Your task to perform on an android device: toggle sleep mode Image 0: 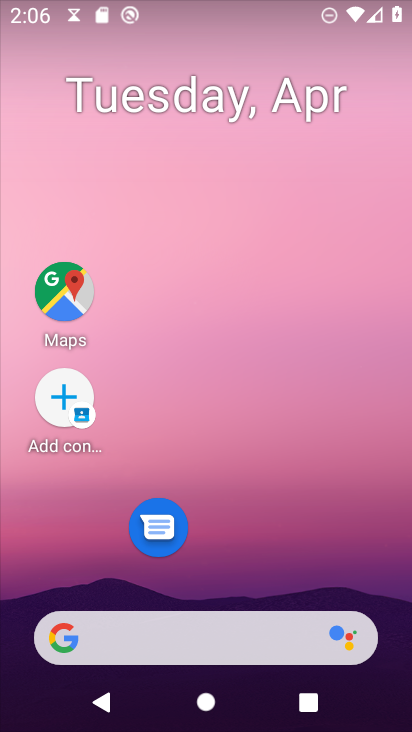
Step 0: drag from (250, 578) to (262, 78)
Your task to perform on an android device: toggle sleep mode Image 1: 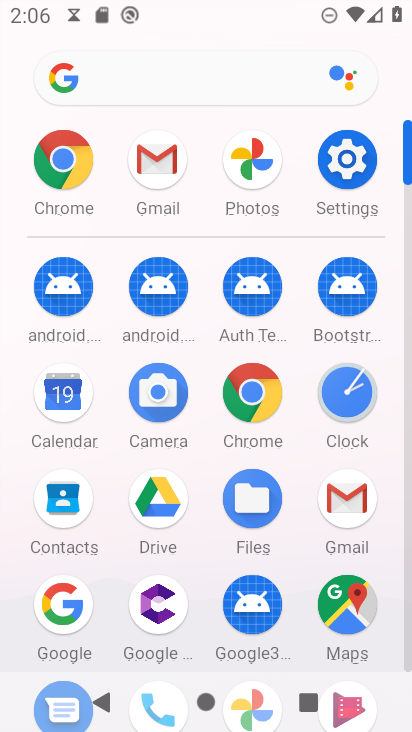
Step 1: drag from (200, 508) to (206, 288)
Your task to perform on an android device: toggle sleep mode Image 2: 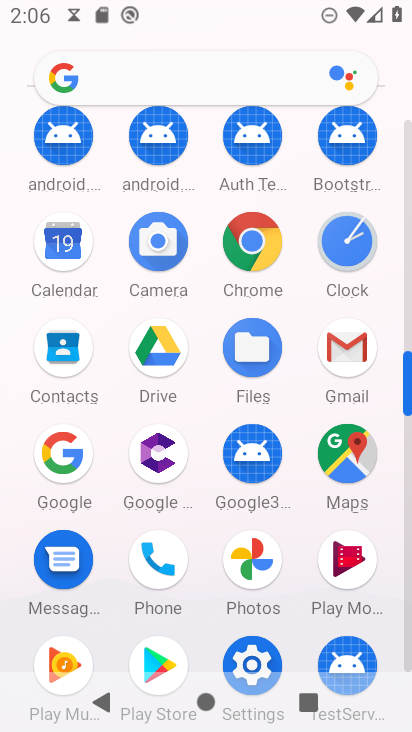
Step 2: drag from (182, 522) to (198, 400)
Your task to perform on an android device: toggle sleep mode Image 3: 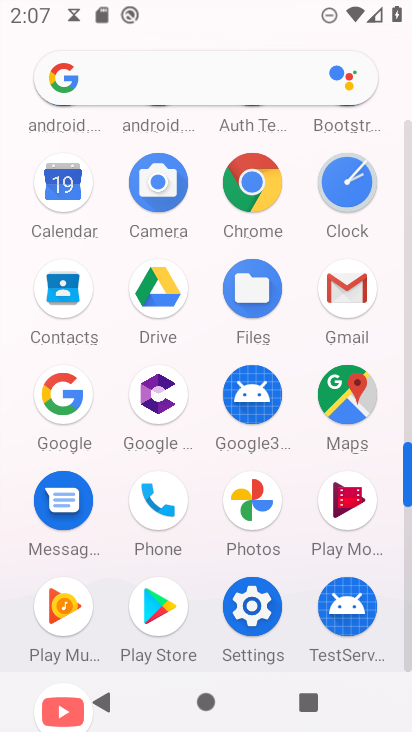
Step 3: click (254, 605)
Your task to perform on an android device: toggle sleep mode Image 4: 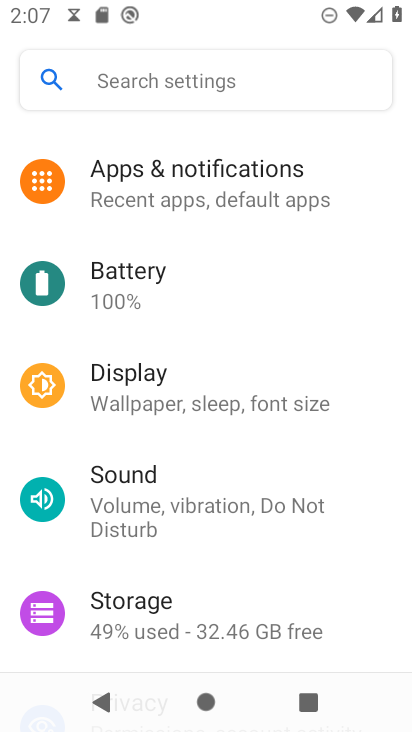
Step 4: click (176, 397)
Your task to perform on an android device: toggle sleep mode Image 5: 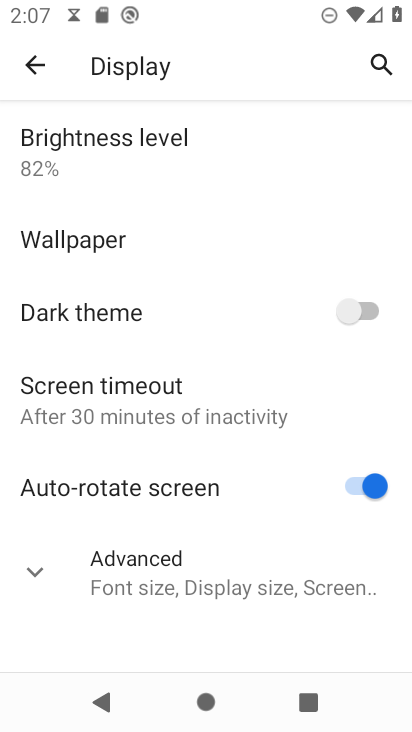
Step 5: drag from (169, 535) to (172, 425)
Your task to perform on an android device: toggle sleep mode Image 6: 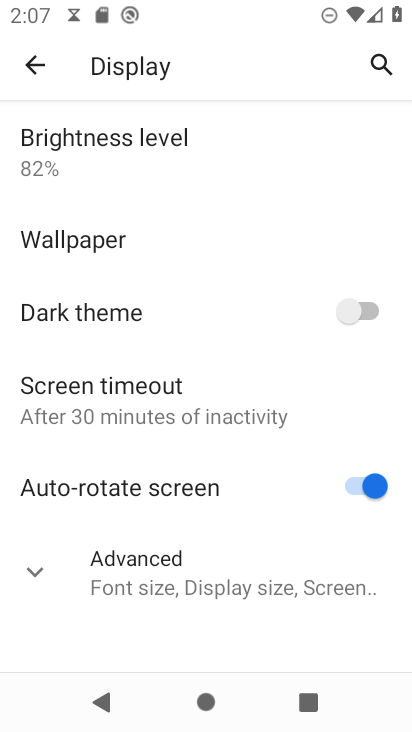
Step 6: click (194, 577)
Your task to perform on an android device: toggle sleep mode Image 7: 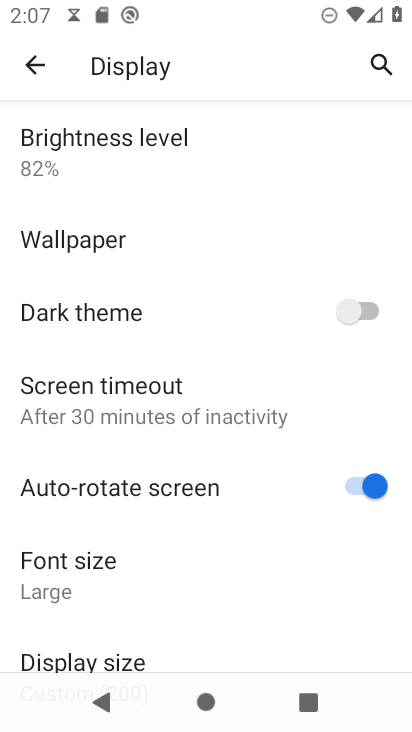
Step 7: task complete